Your task to perform on an android device: turn on sleep mode Image 0: 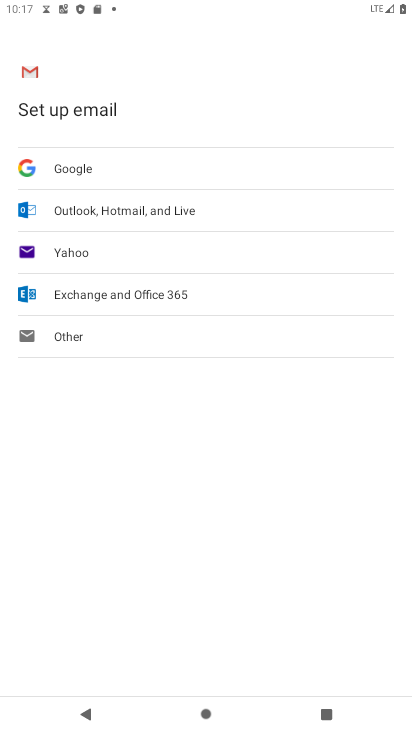
Step 0: press home button
Your task to perform on an android device: turn on sleep mode Image 1: 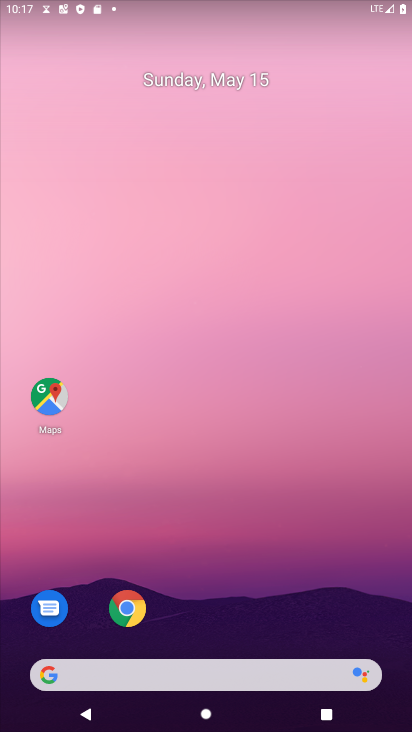
Step 1: drag from (331, 546) to (298, 158)
Your task to perform on an android device: turn on sleep mode Image 2: 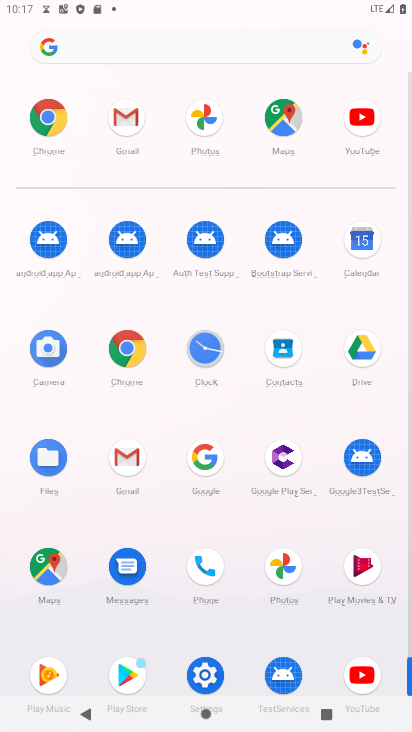
Step 2: click (214, 671)
Your task to perform on an android device: turn on sleep mode Image 3: 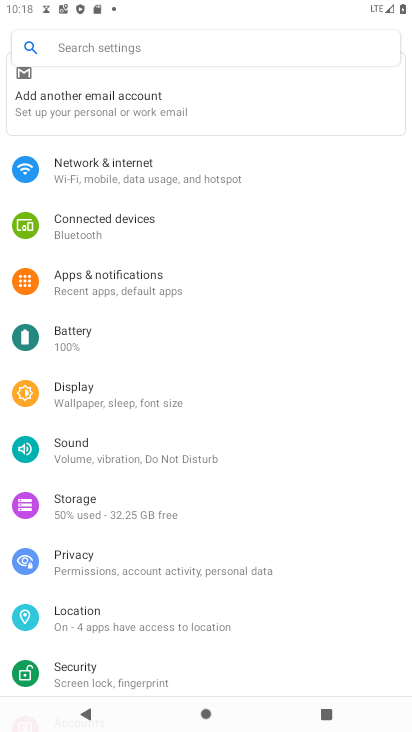
Step 3: click (119, 395)
Your task to perform on an android device: turn on sleep mode Image 4: 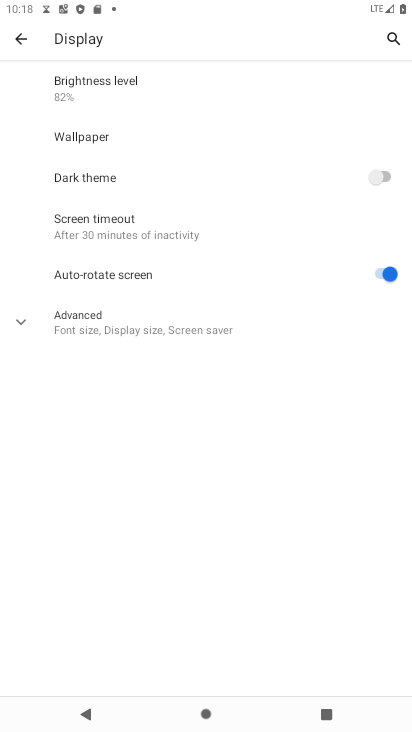
Step 4: click (98, 219)
Your task to perform on an android device: turn on sleep mode Image 5: 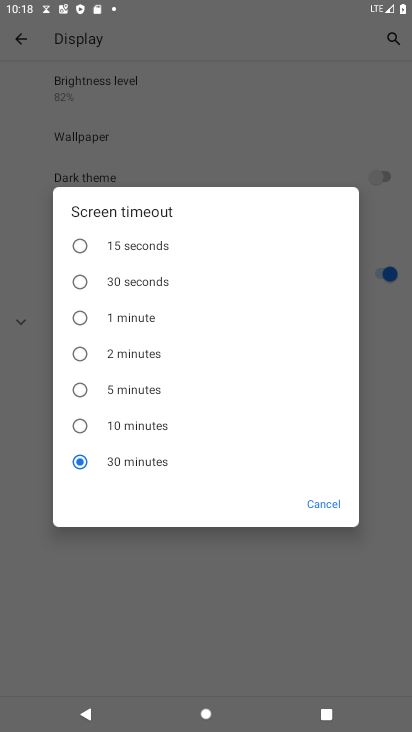
Step 5: task complete